Your task to perform on an android device: set an alarm Image 0: 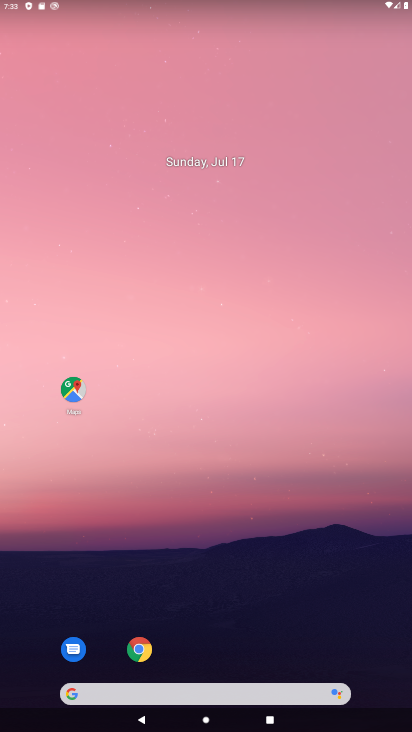
Step 0: drag from (216, 677) to (230, 16)
Your task to perform on an android device: set an alarm Image 1: 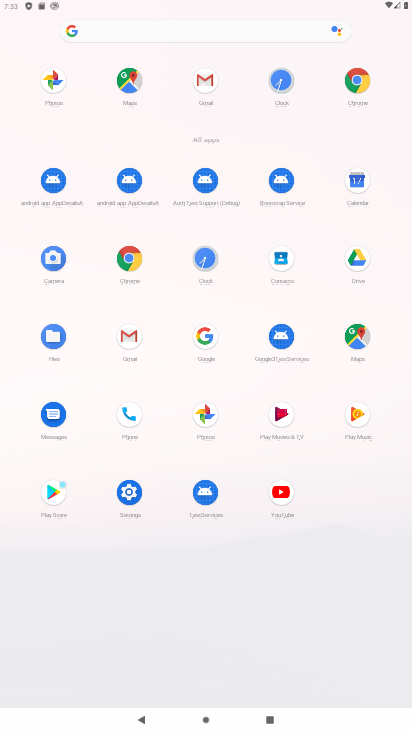
Step 1: click (216, 259)
Your task to perform on an android device: set an alarm Image 2: 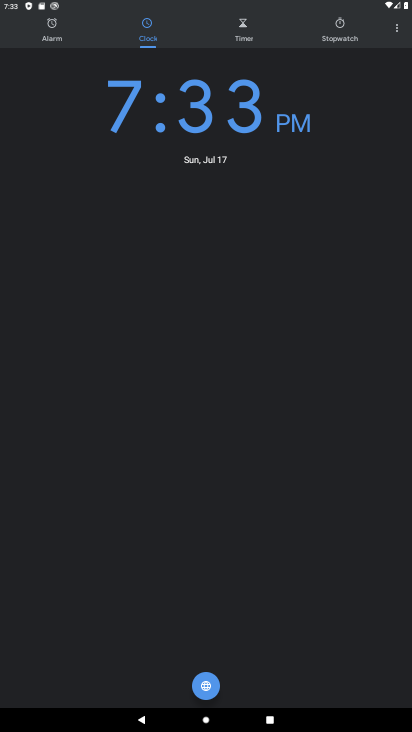
Step 2: click (53, 30)
Your task to perform on an android device: set an alarm Image 3: 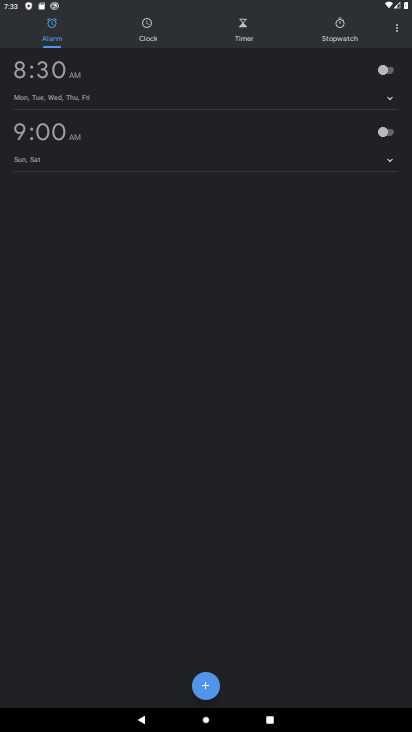
Step 3: click (84, 91)
Your task to perform on an android device: set an alarm Image 4: 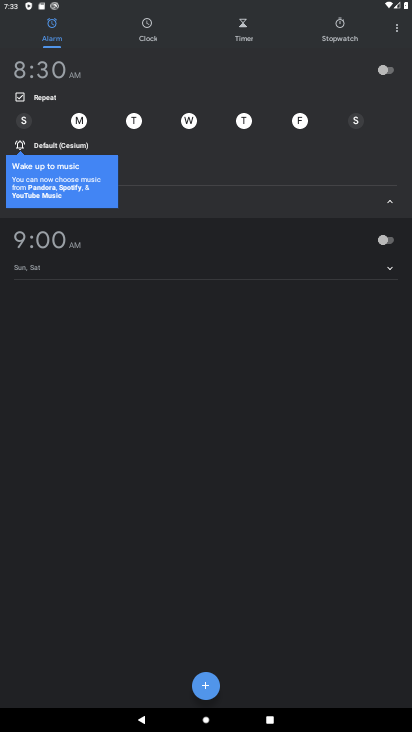
Step 4: click (49, 73)
Your task to perform on an android device: set an alarm Image 5: 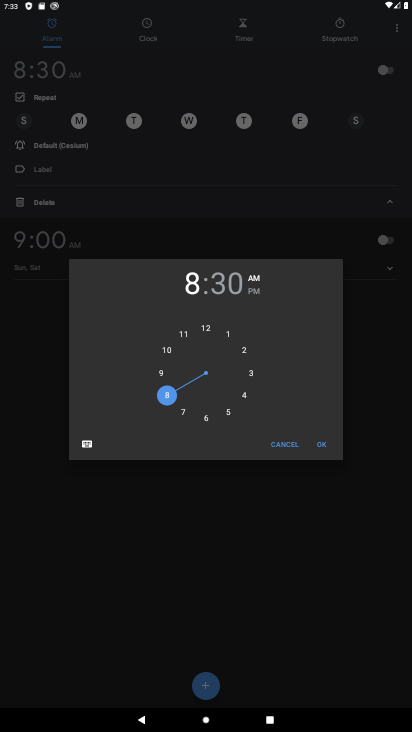
Step 5: click (184, 337)
Your task to perform on an android device: set an alarm Image 6: 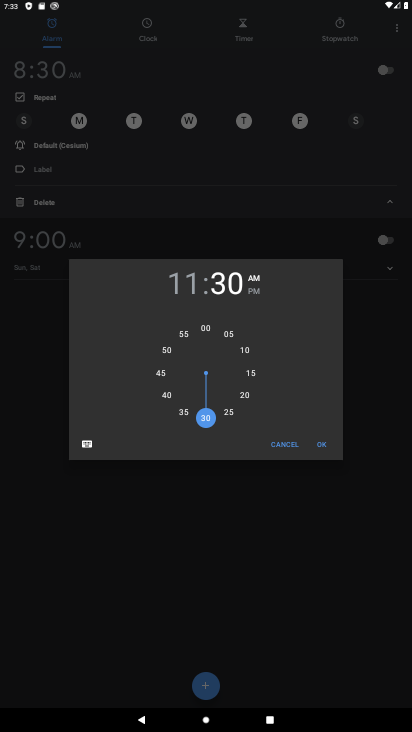
Step 6: click (221, 411)
Your task to perform on an android device: set an alarm Image 7: 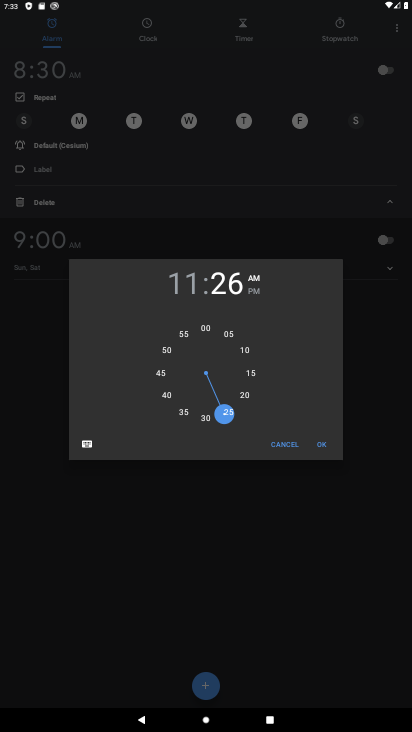
Step 7: click (318, 441)
Your task to perform on an android device: set an alarm Image 8: 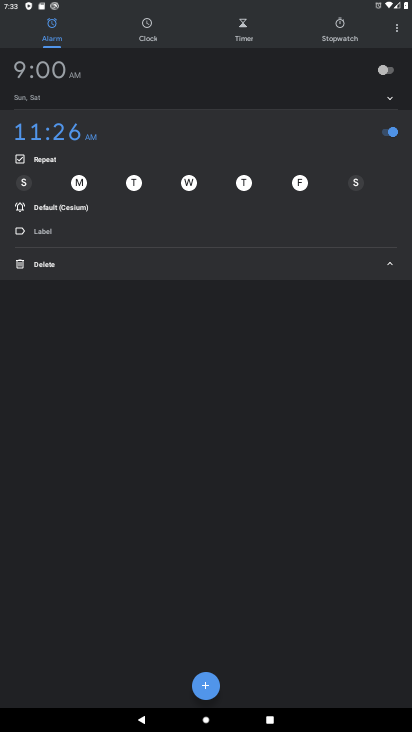
Step 8: click (19, 160)
Your task to perform on an android device: set an alarm Image 9: 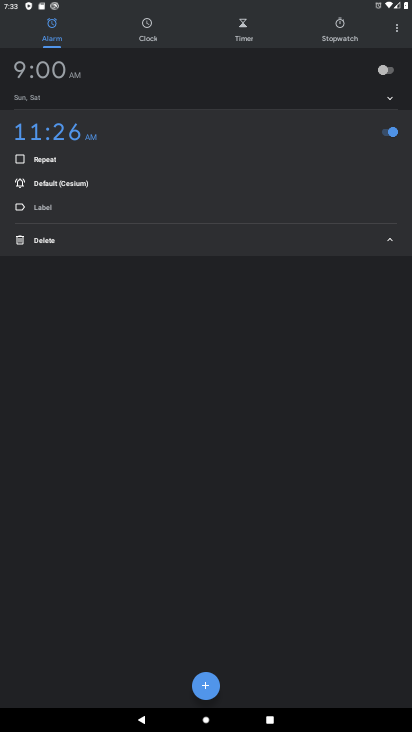
Step 9: task complete